Your task to perform on an android device: turn on improve location accuracy Image 0: 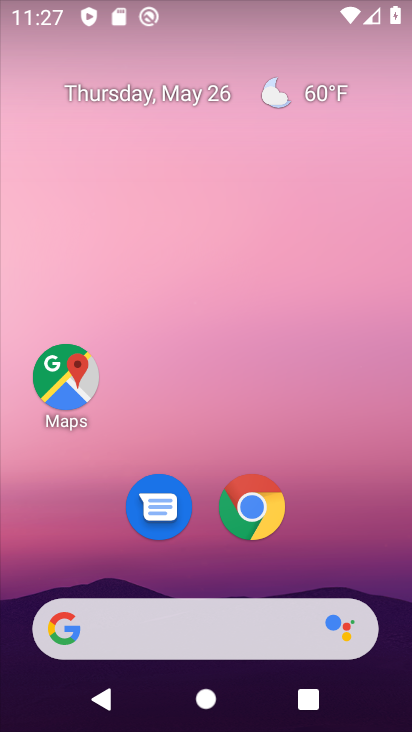
Step 0: drag from (356, 543) to (362, 191)
Your task to perform on an android device: turn on improve location accuracy Image 1: 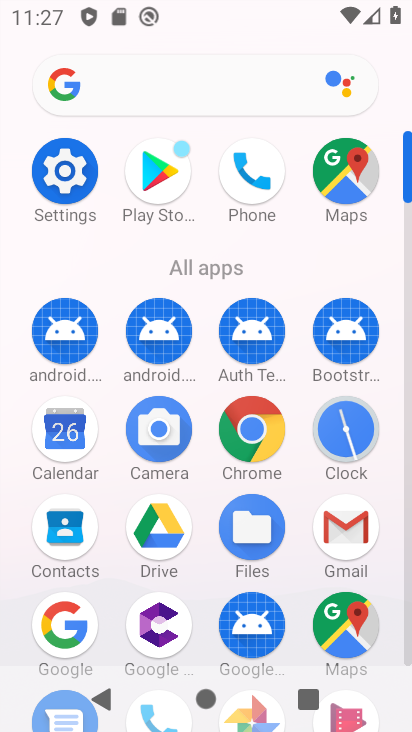
Step 1: click (58, 180)
Your task to perform on an android device: turn on improve location accuracy Image 2: 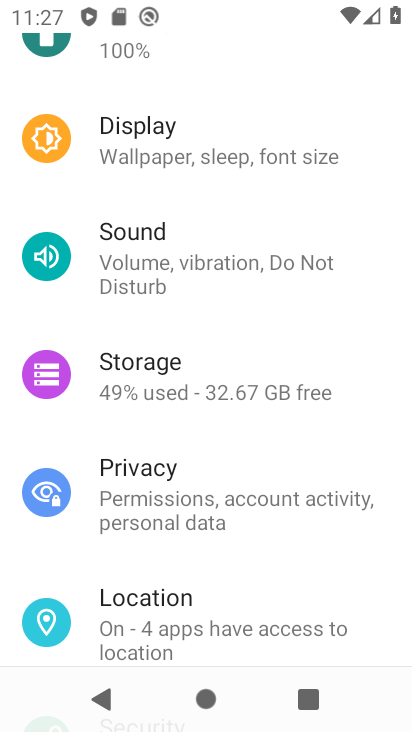
Step 2: click (251, 605)
Your task to perform on an android device: turn on improve location accuracy Image 3: 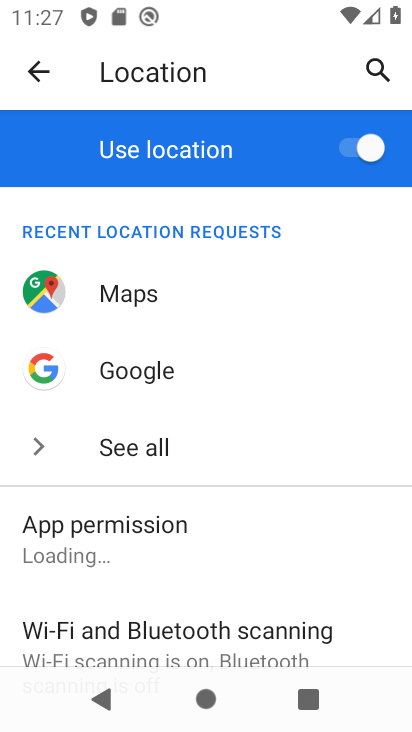
Step 3: drag from (289, 607) to (264, 374)
Your task to perform on an android device: turn on improve location accuracy Image 4: 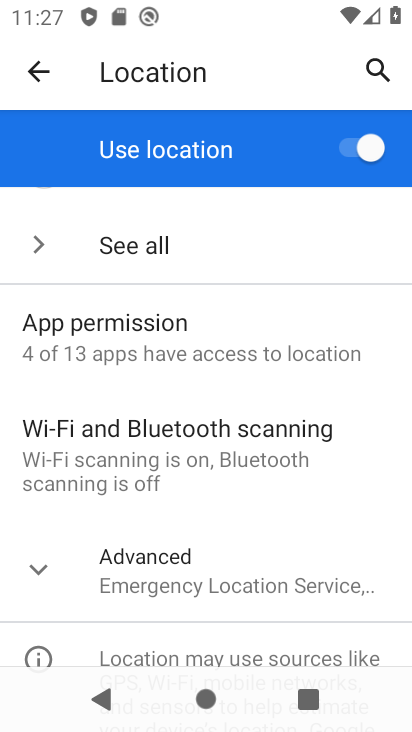
Step 4: click (271, 558)
Your task to perform on an android device: turn on improve location accuracy Image 5: 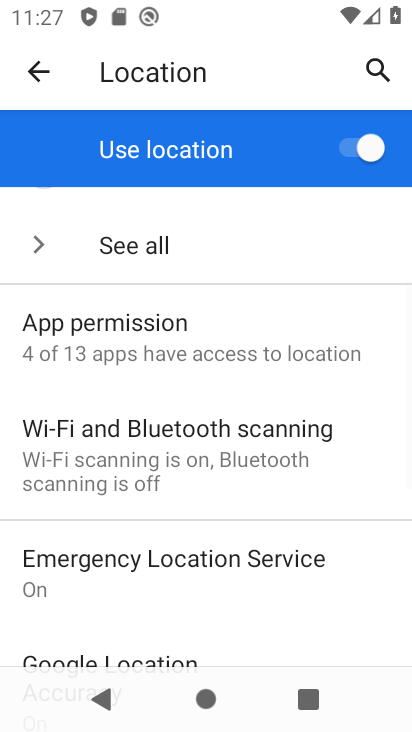
Step 5: drag from (290, 589) to (273, 394)
Your task to perform on an android device: turn on improve location accuracy Image 6: 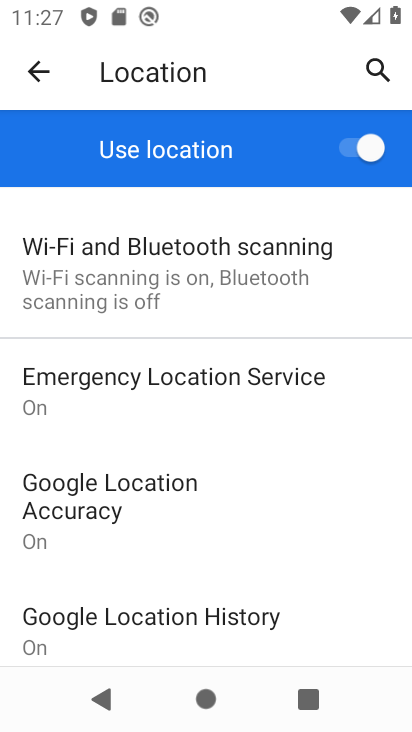
Step 6: click (149, 481)
Your task to perform on an android device: turn on improve location accuracy Image 7: 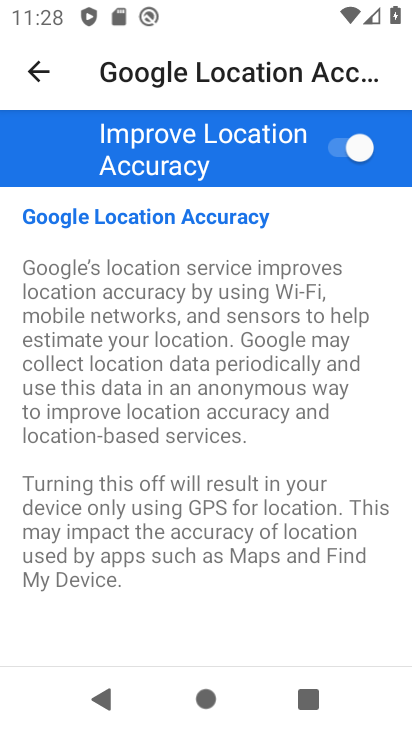
Step 7: task complete